Your task to perform on an android device: move a message to another label in the gmail app Image 0: 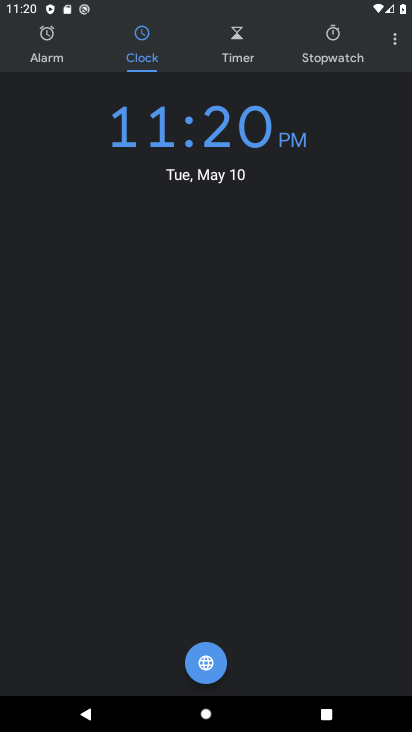
Step 0: press home button
Your task to perform on an android device: move a message to another label in the gmail app Image 1: 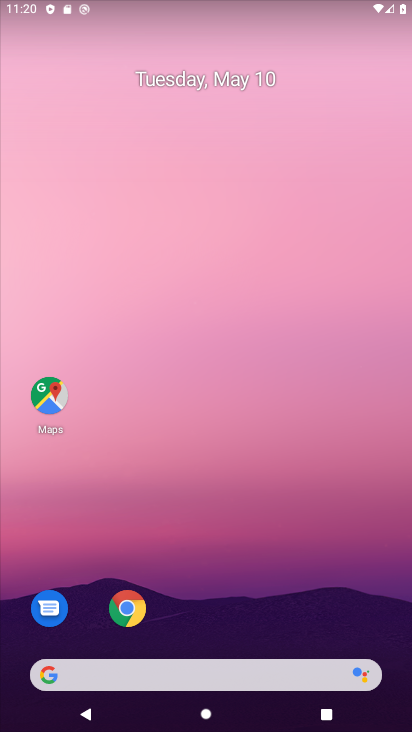
Step 1: drag from (265, 625) to (295, 225)
Your task to perform on an android device: move a message to another label in the gmail app Image 2: 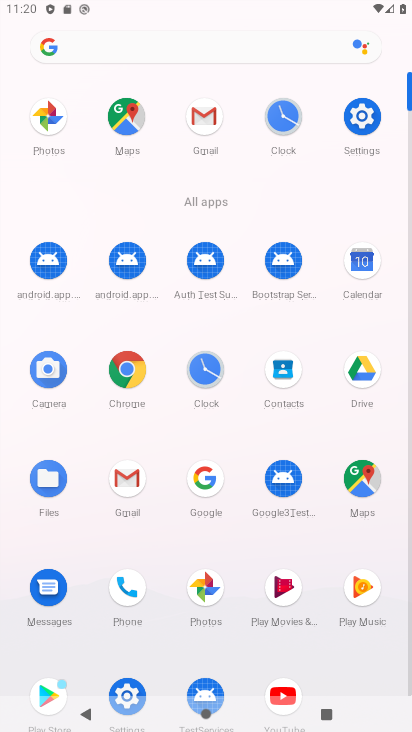
Step 2: click (198, 131)
Your task to perform on an android device: move a message to another label in the gmail app Image 3: 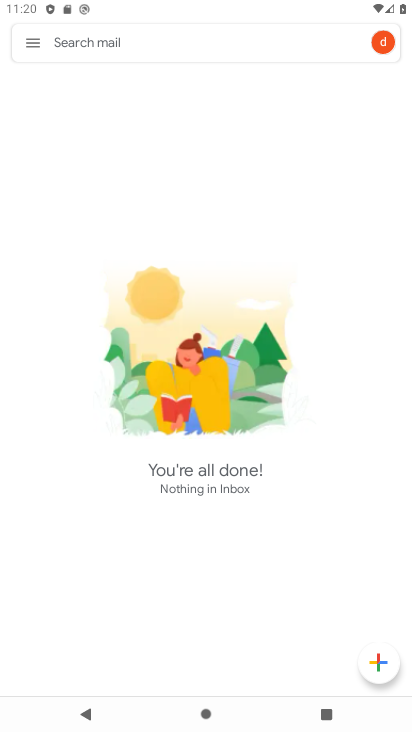
Step 3: click (36, 46)
Your task to perform on an android device: move a message to another label in the gmail app Image 4: 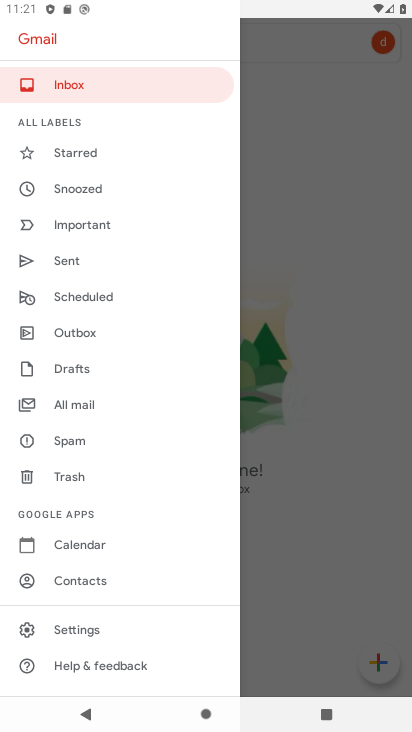
Step 4: click (350, 290)
Your task to perform on an android device: move a message to another label in the gmail app Image 5: 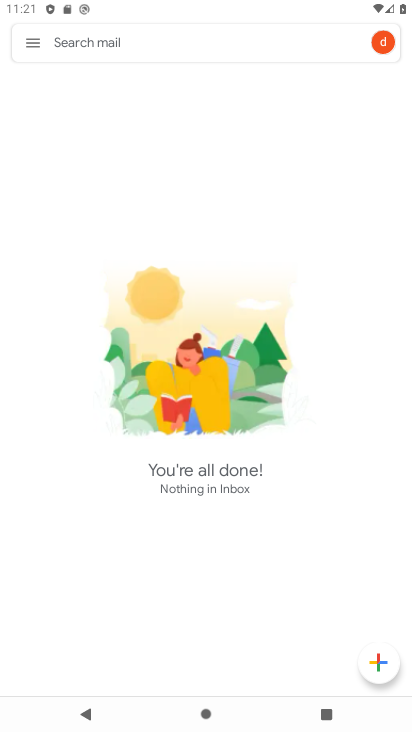
Step 5: task complete